Your task to perform on an android device: Look up the best rated book on Goodreads Image 0: 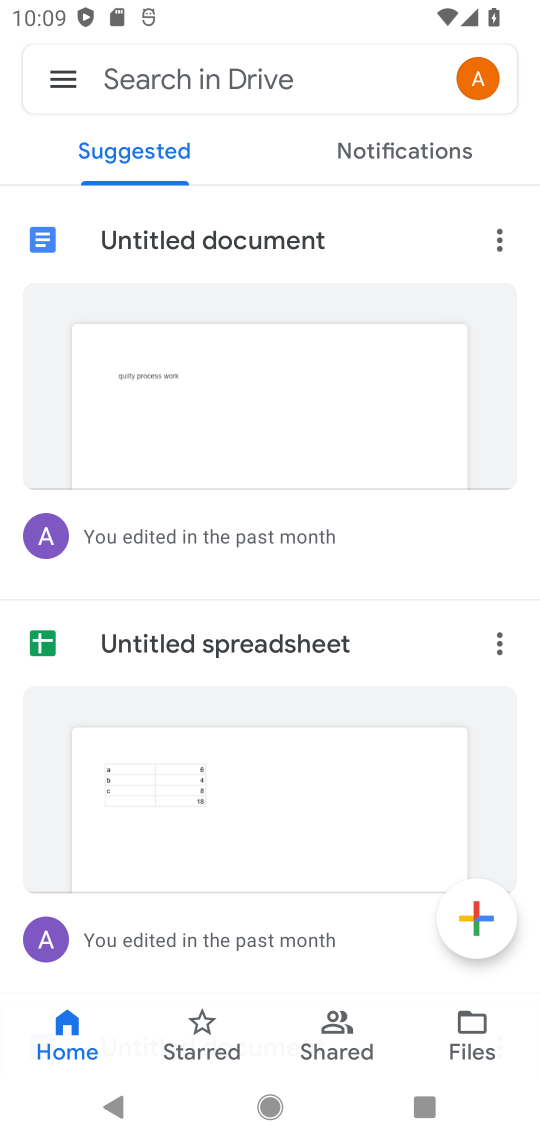
Step 0: press home button
Your task to perform on an android device: Look up the best rated book on Goodreads Image 1: 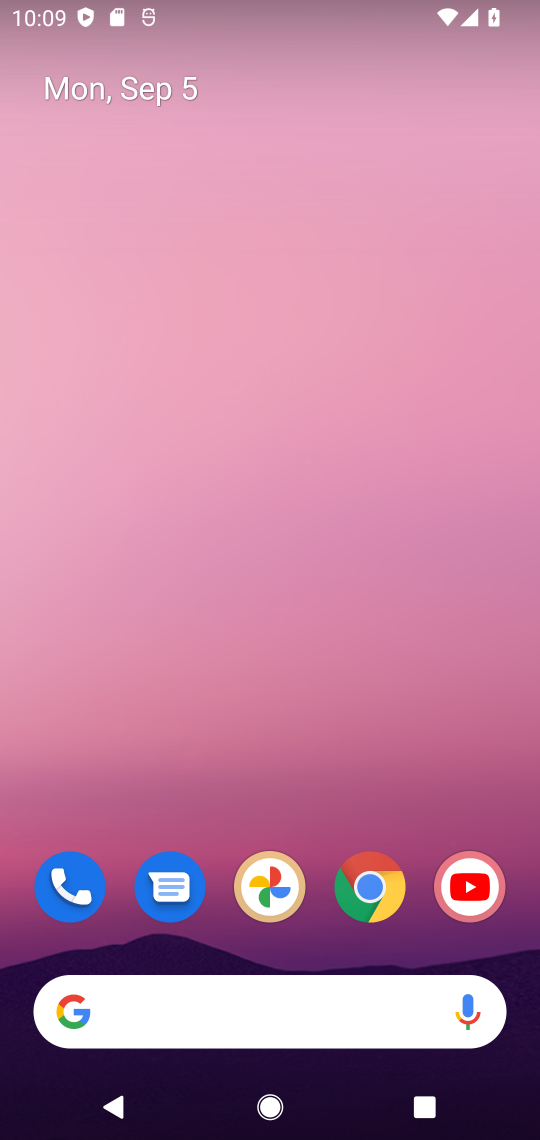
Step 1: click (360, 886)
Your task to perform on an android device: Look up the best rated book on Goodreads Image 2: 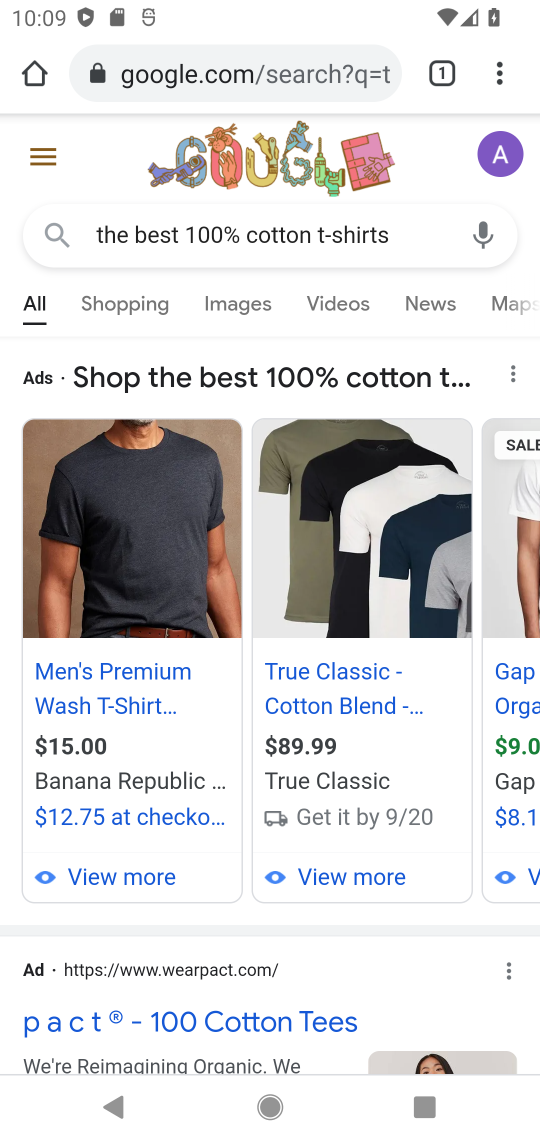
Step 2: click (294, 58)
Your task to perform on an android device: Look up the best rated book on Goodreads Image 3: 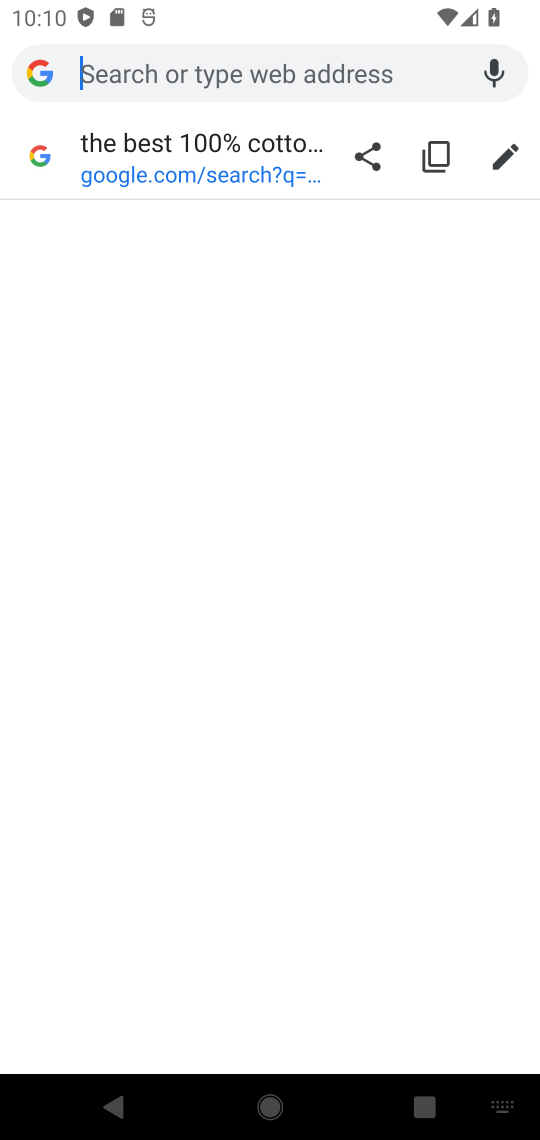
Step 3: type "good reads"
Your task to perform on an android device: Look up the best rated book on Goodreads Image 4: 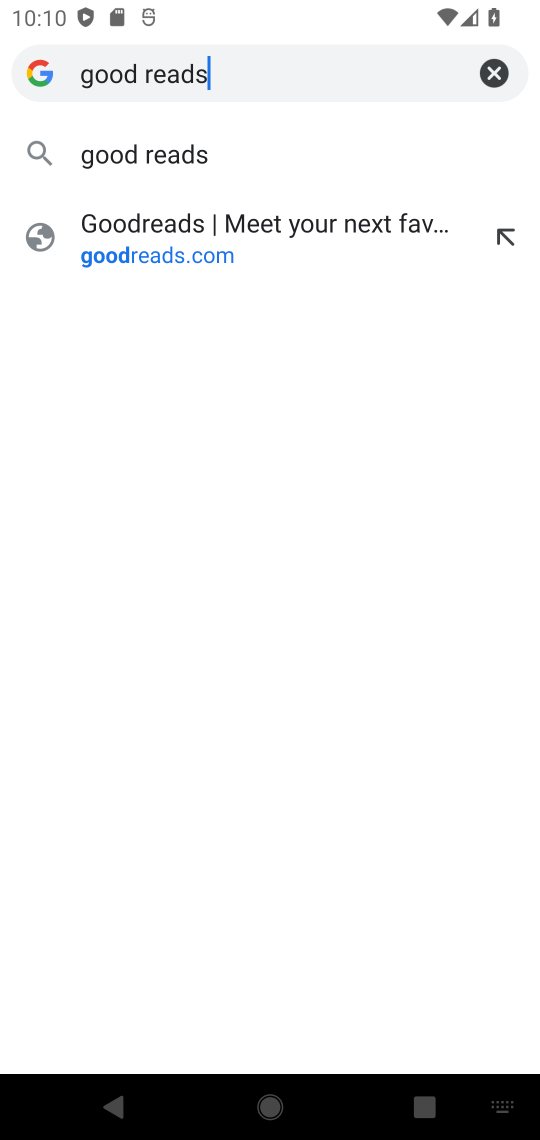
Step 4: click (193, 173)
Your task to perform on an android device: Look up the best rated book on Goodreads Image 5: 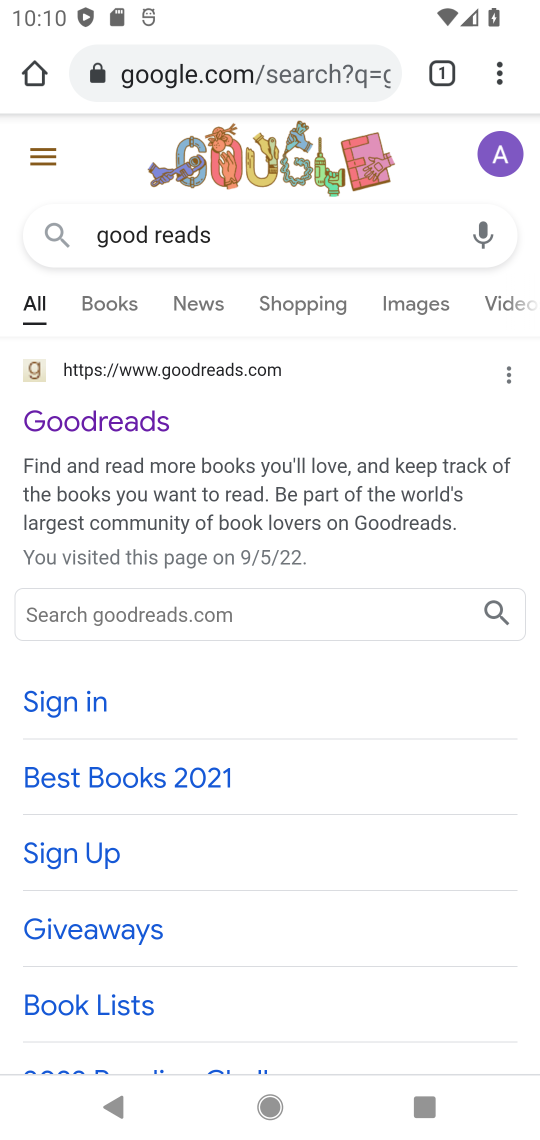
Step 5: click (102, 431)
Your task to perform on an android device: Look up the best rated book on Goodreads Image 6: 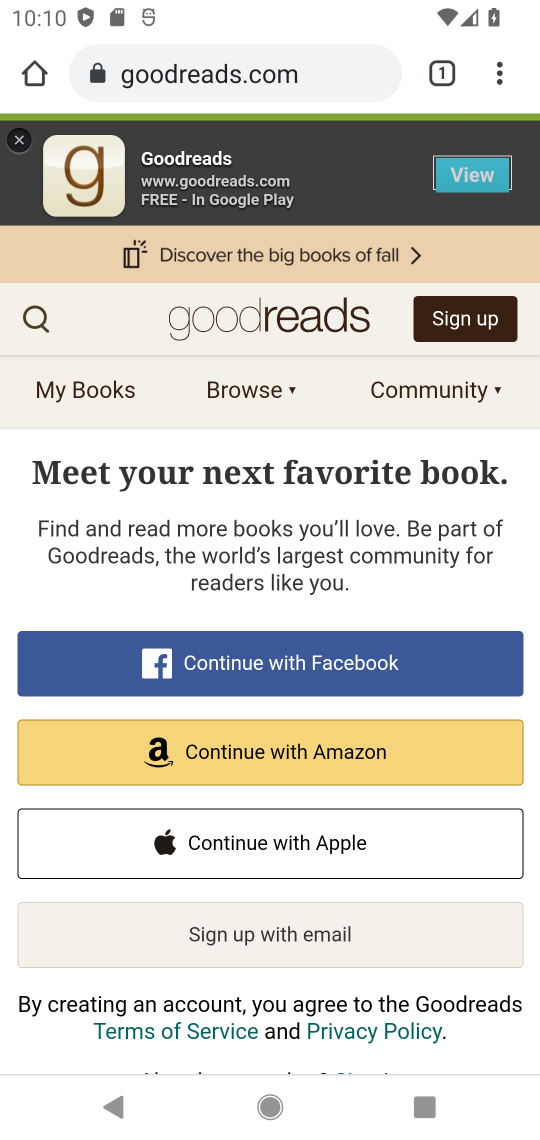
Step 6: click (25, 317)
Your task to perform on an android device: Look up the best rated book on Goodreads Image 7: 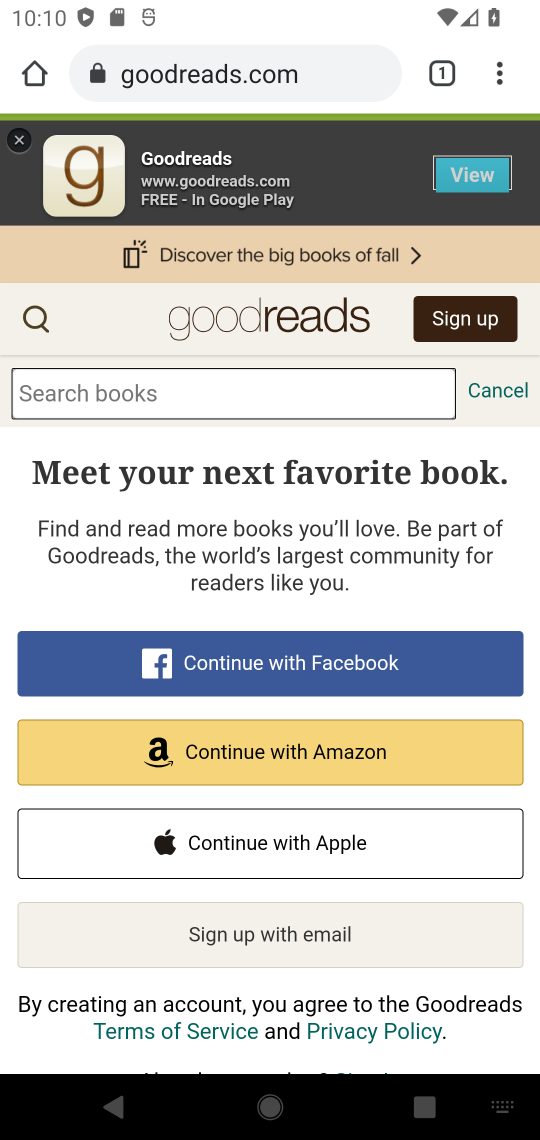
Step 7: type "the best rated book"
Your task to perform on an android device: Look up the best rated book on Goodreads Image 8: 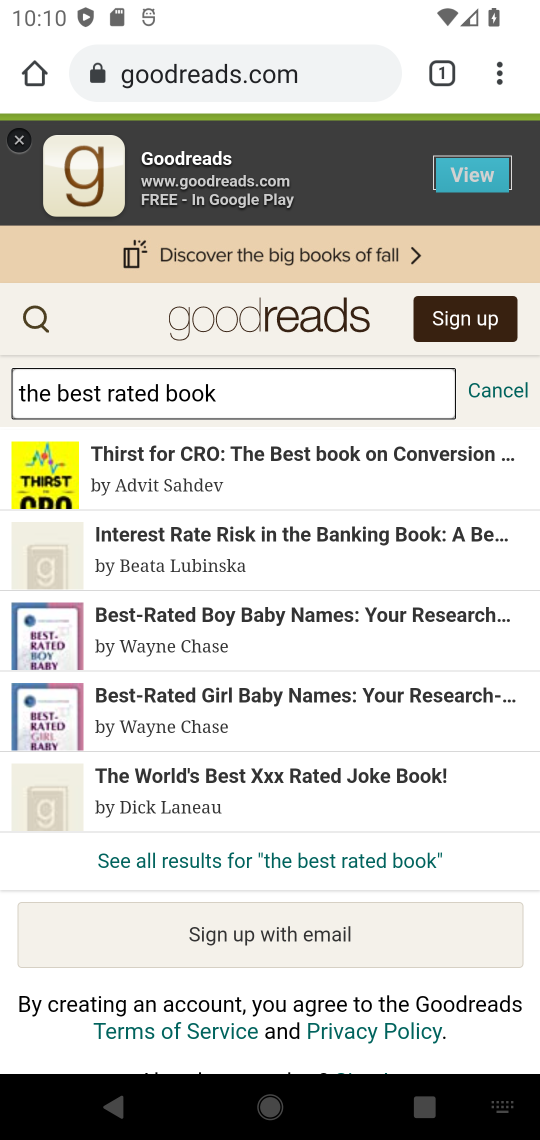
Step 8: task complete